Your task to perform on an android device: see sites visited before in the chrome app Image 0: 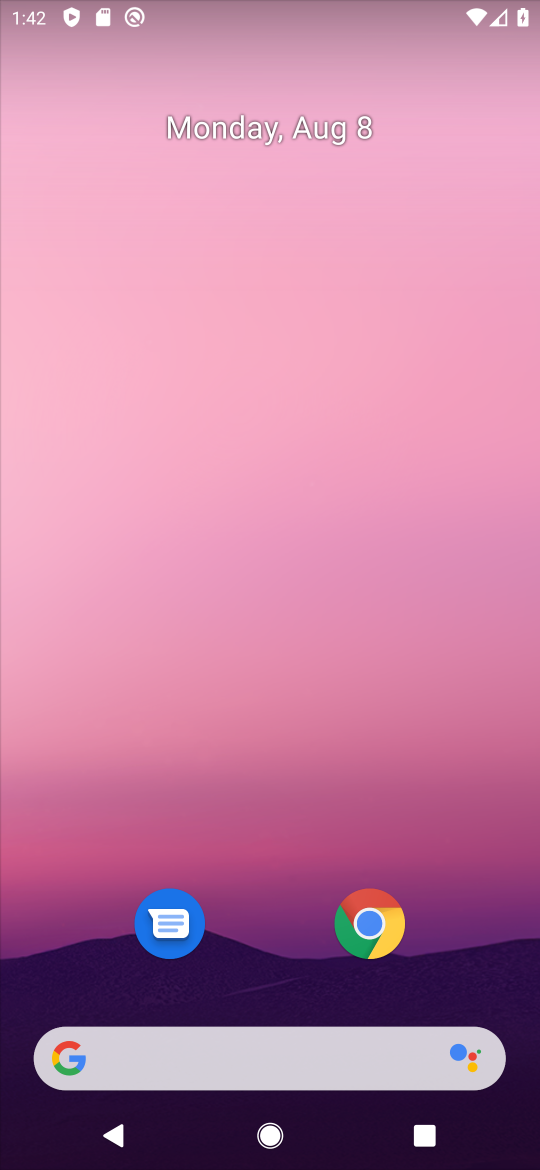
Step 0: click (372, 917)
Your task to perform on an android device: see sites visited before in the chrome app Image 1: 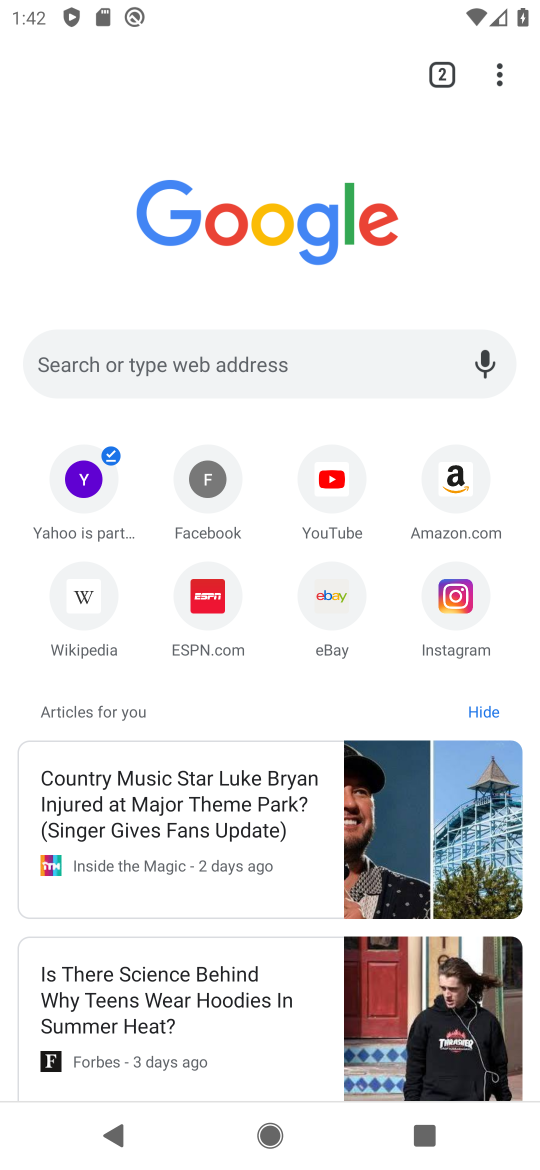
Step 1: task complete